Your task to perform on an android device: turn on airplane mode Image 0: 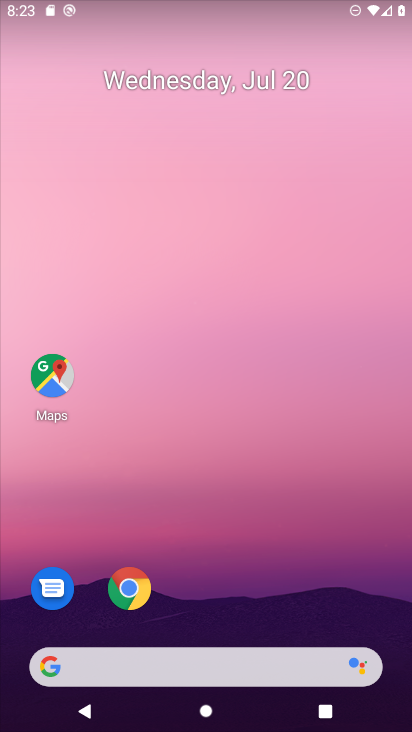
Step 0: drag from (29, 707) to (205, 44)
Your task to perform on an android device: turn on airplane mode Image 1: 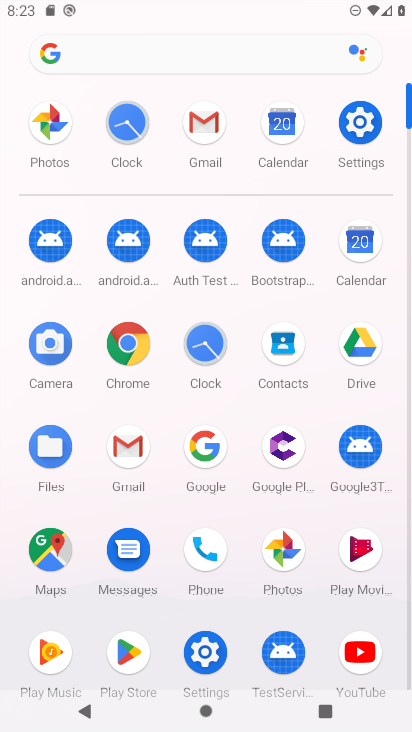
Step 1: click (203, 652)
Your task to perform on an android device: turn on airplane mode Image 2: 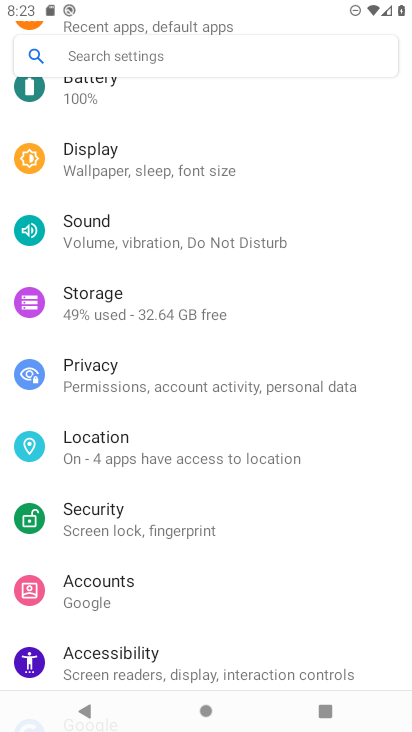
Step 2: drag from (242, 254) to (255, 457)
Your task to perform on an android device: turn on airplane mode Image 3: 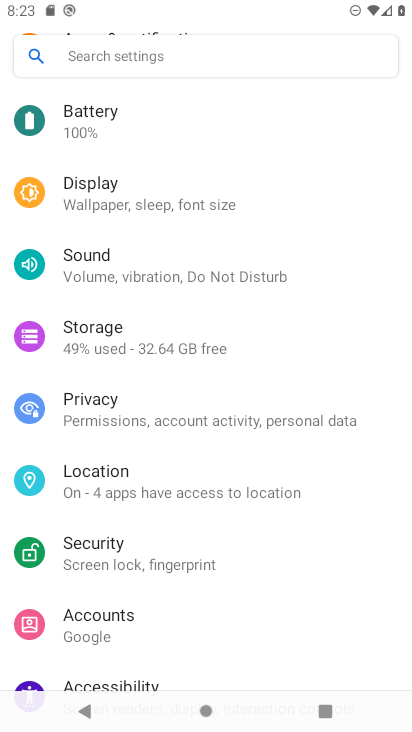
Step 3: drag from (202, 156) to (222, 496)
Your task to perform on an android device: turn on airplane mode Image 4: 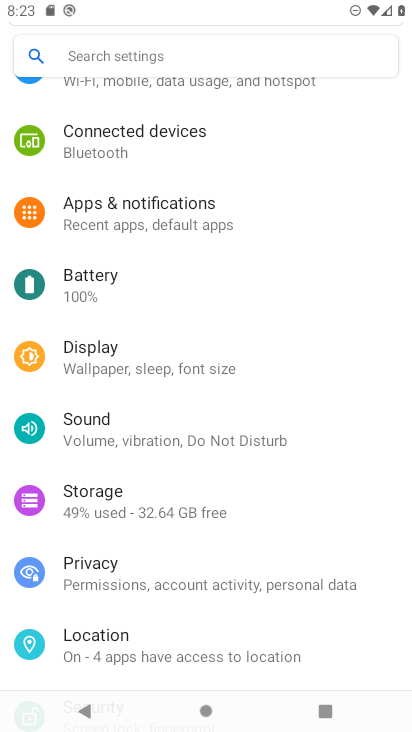
Step 4: drag from (259, 135) to (261, 558)
Your task to perform on an android device: turn on airplane mode Image 5: 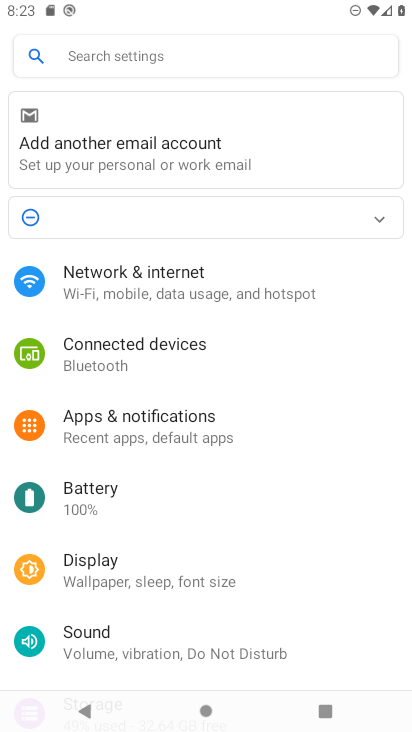
Step 5: click (167, 292)
Your task to perform on an android device: turn on airplane mode Image 6: 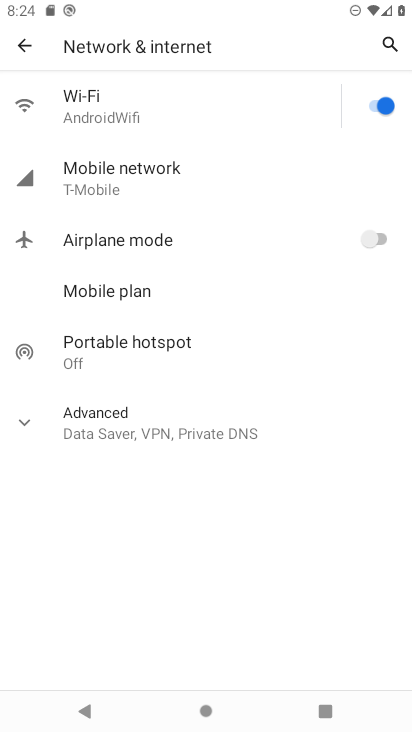
Step 6: click (361, 245)
Your task to perform on an android device: turn on airplane mode Image 7: 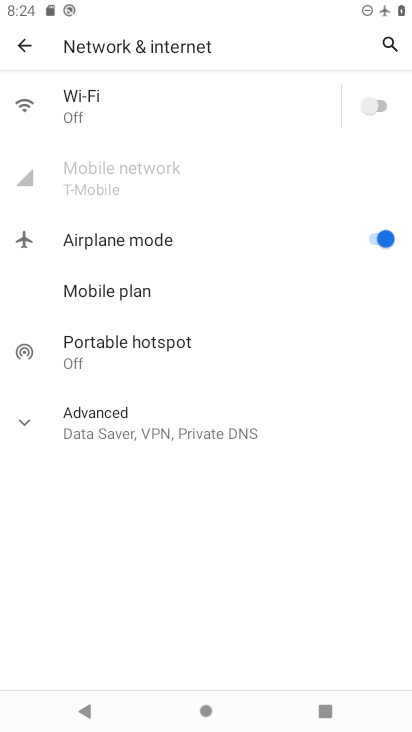
Step 7: task complete